Your task to perform on an android device: Search for vegetarian restaurants on Maps Image 0: 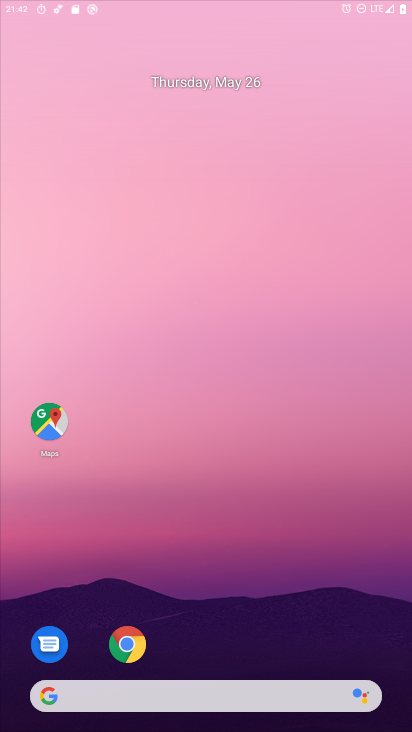
Step 0: click (266, 239)
Your task to perform on an android device: Search for vegetarian restaurants on Maps Image 1: 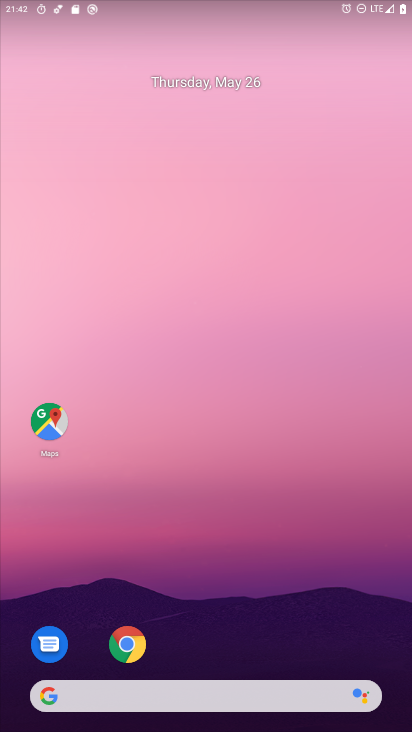
Step 1: drag from (183, 657) to (245, 192)
Your task to perform on an android device: Search for vegetarian restaurants on Maps Image 2: 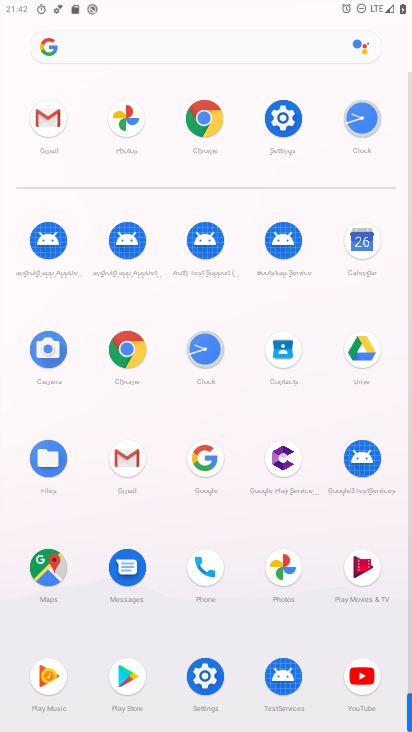
Step 2: click (54, 569)
Your task to perform on an android device: Search for vegetarian restaurants on Maps Image 3: 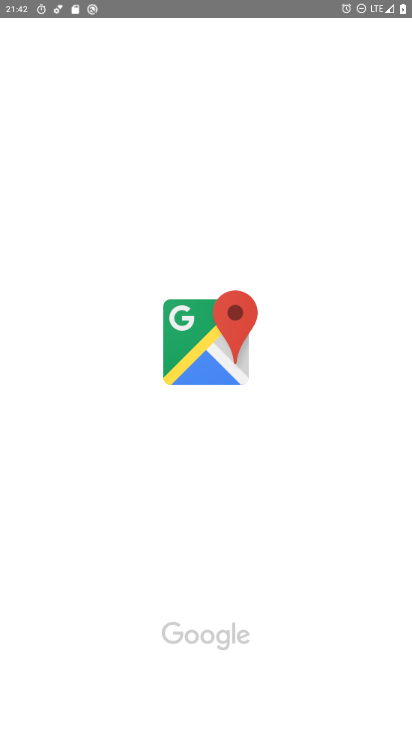
Step 3: drag from (211, 562) to (294, 226)
Your task to perform on an android device: Search for vegetarian restaurants on Maps Image 4: 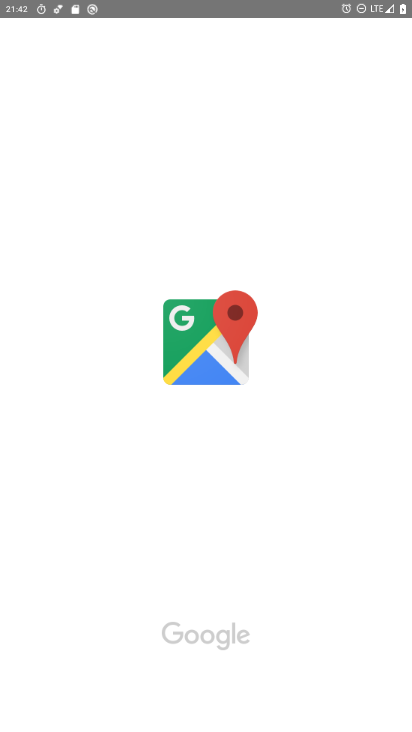
Step 4: drag from (218, 604) to (233, 363)
Your task to perform on an android device: Search for vegetarian restaurants on Maps Image 5: 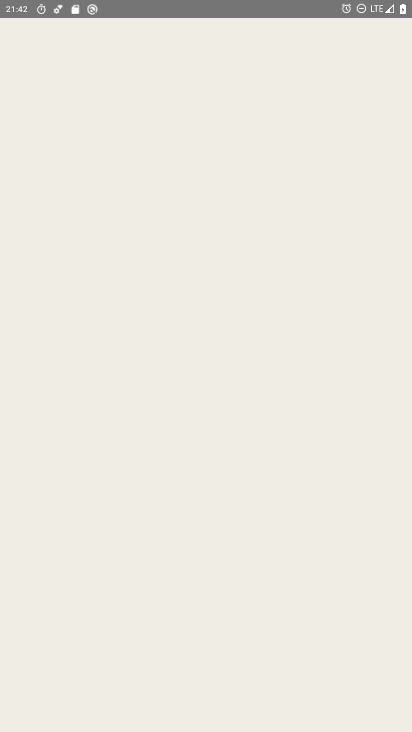
Step 5: drag from (274, 183) to (255, 584)
Your task to perform on an android device: Search for vegetarian restaurants on Maps Image 6: 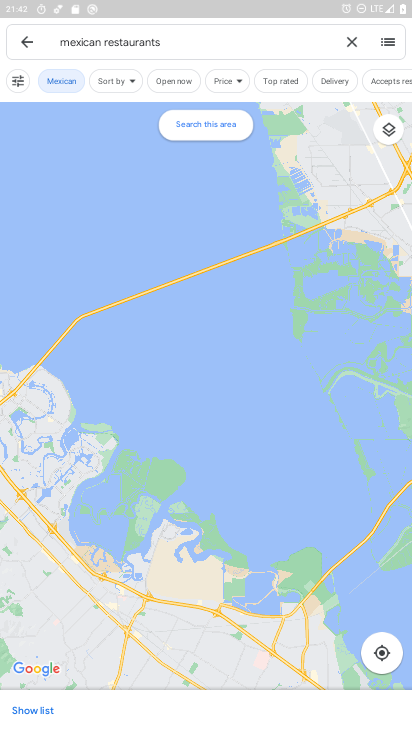
Step 6: click (355, 40)
Your task to perform on an android device: Search for vegetarian restaurants on Maps Image 7: 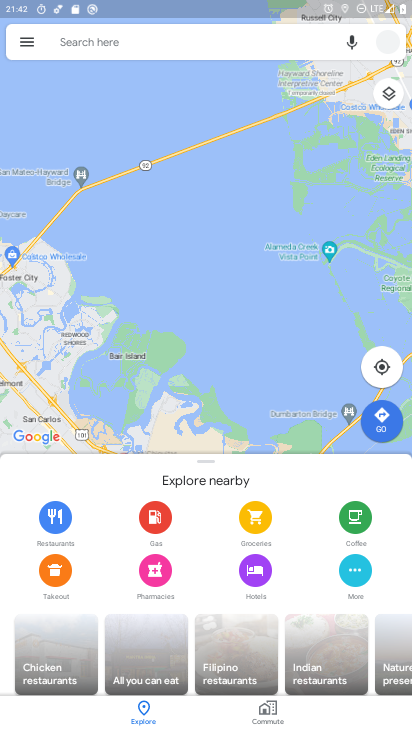
Step 7: click (145, 37)
Your task to perform on an android device: Search for vegetarian restaurants on Maps Image 8: 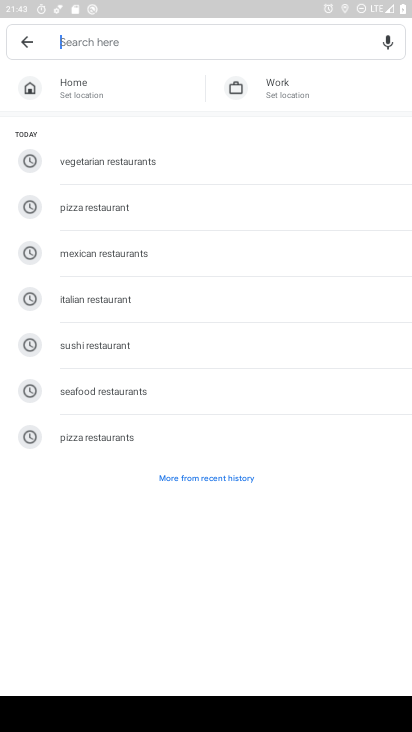
Step 8: click (96, 154)
Your task to perform on an android device: Search for vegetarian restaurants on Maps Image 9: 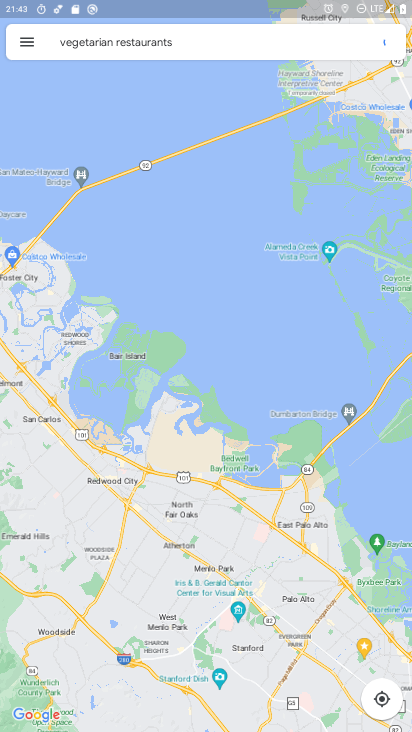
Step 9: task complete